Your task to perform on an android device: turn off data saver in the chrome app Image 0: 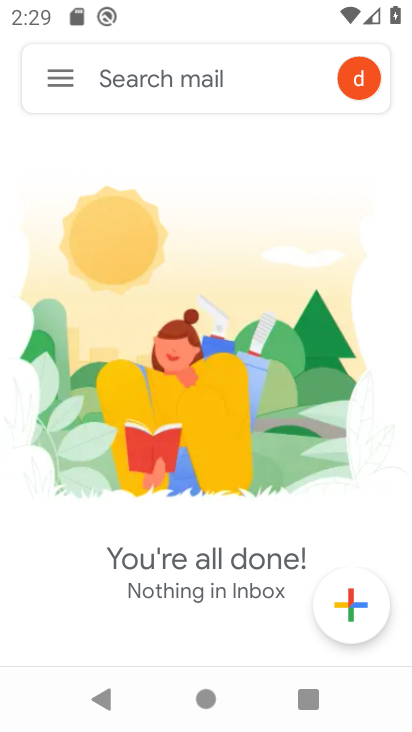
Step 0: press home button
Your task to perform on an android device: turn off data saver in the chrome app Image 1: 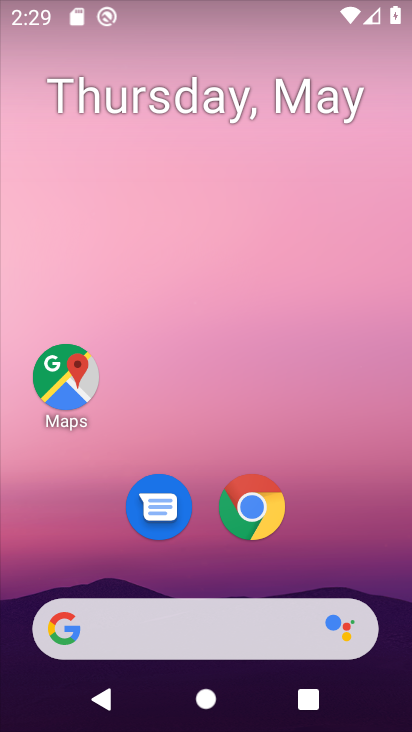
Step 1: click (255, 518)
Your task to perform on an android device: turn off data saver in the chrome app Image 2: 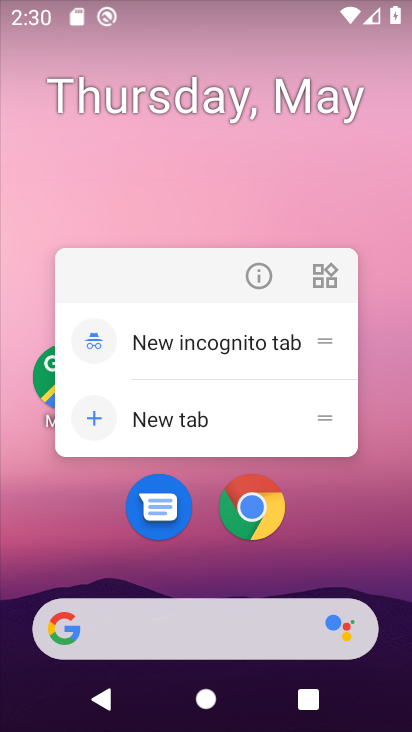
Step 2: click (245, 511)
Your task to perform on an android device: turn off data saver in the chrome app Image 3: 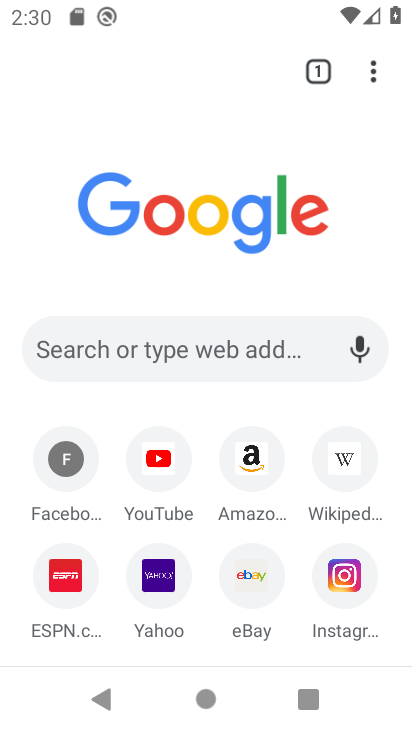
Step 3: drag from (384, 81) to (269, 526)
Your task to perform on an android device: turn off data saver in the chrome app Image 4: 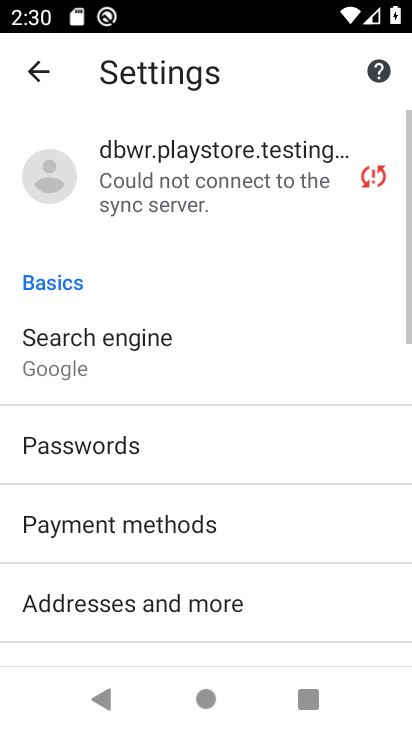
Step 4: drag from (279, 572) to (359, 212)
Your task to perform on an android device: turn off data saver in the chrome app Image 5: 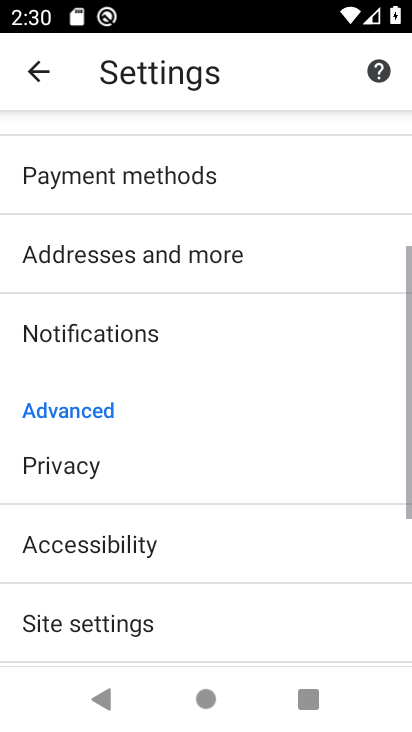
Step 5: drag from (239, 582) to (321, 172)
Your task to perform on an android device: turn off data saver in the chrome app Image 6: 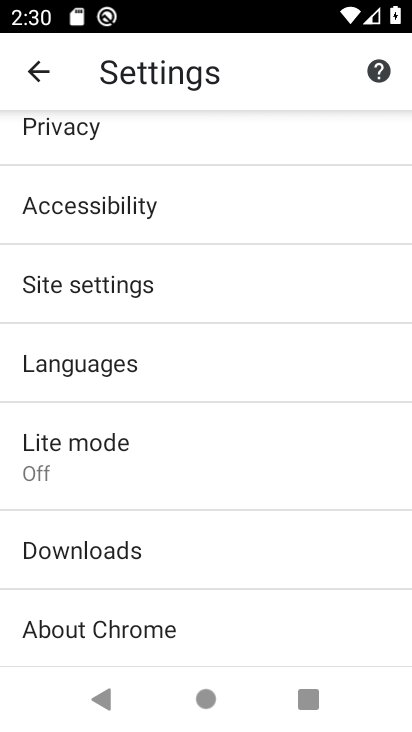
Step 6: click (227, 452)
Your task to perform on an android device: turn off data saver in the chrome app Image 7: 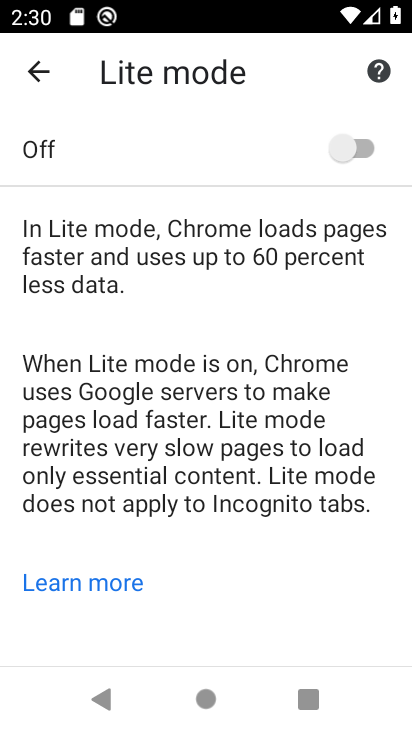
Step 7: task complete